Your task to perform on an android device: Open internet settings Image 0: 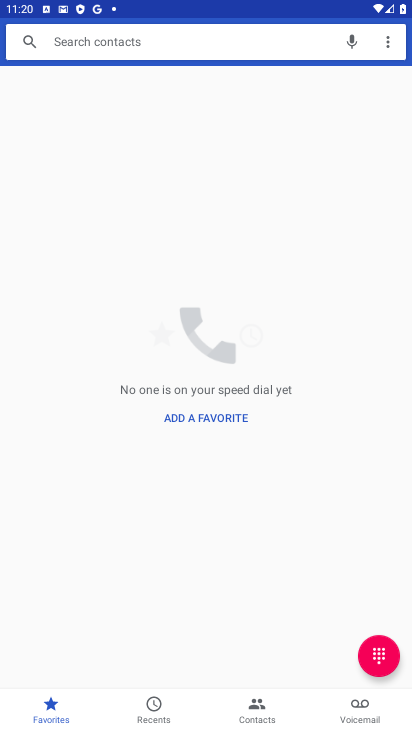
Step 0: press home button
Your task to perform on an android device: Open internet settings Image 1: 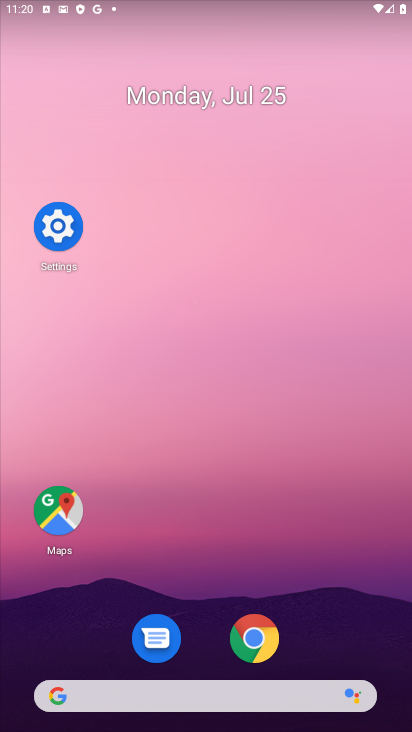
Step 1: click (65, 233)
Your task to perform on an android device: Open internet settings Image 2: 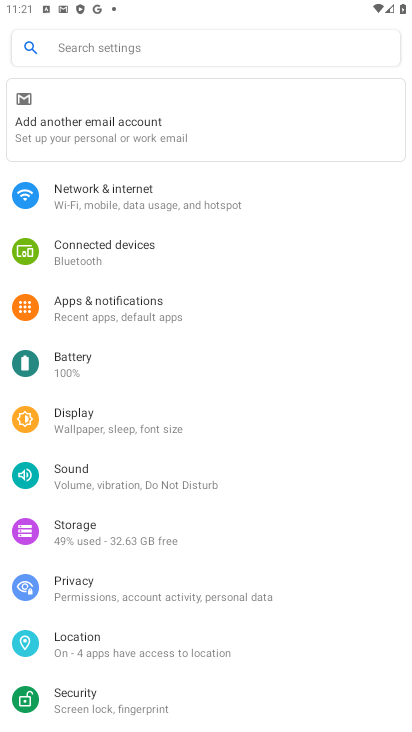
Step 2: click (151, 203)
Your task to perform on an android device: Open internet settings Image 3: 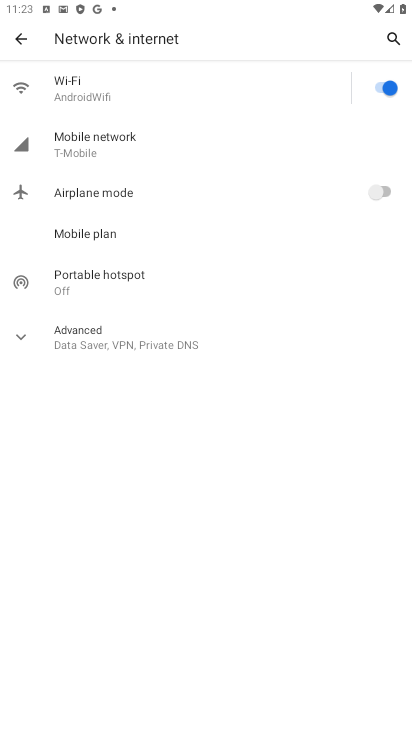
Step 3: task complete